Your task to perform on an android device: read, delete, or share a saved page in the chrome app Image 0: 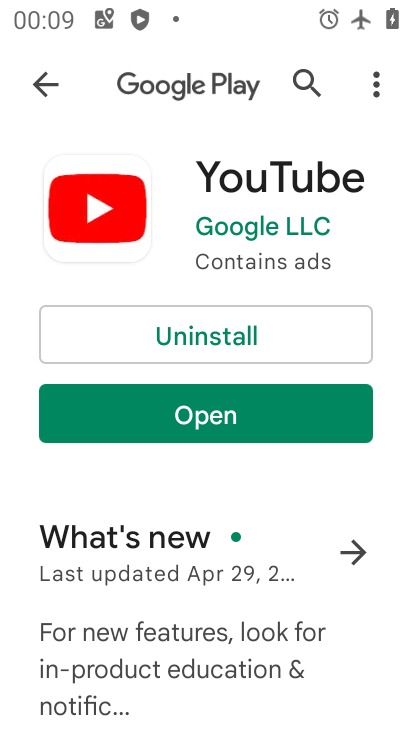
Step 0: press home button
Your task to perform on an android device: read, delete, or share a saved page in the chrome app Image 1: 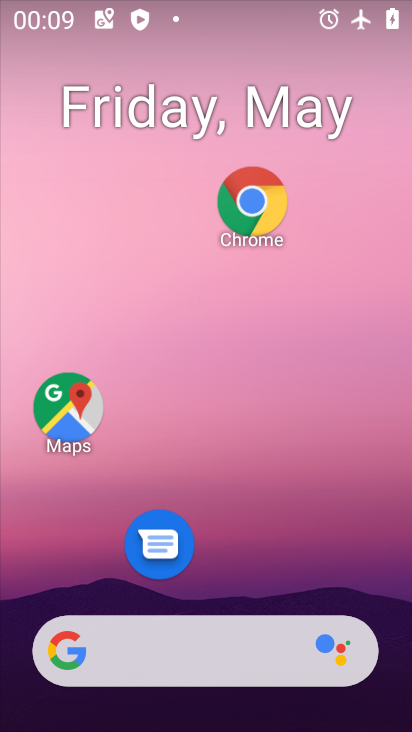
Step 1: click (251, 197)
Your task to perform on an android device: read, delete, or share a saved page in the chrome app Image 2: 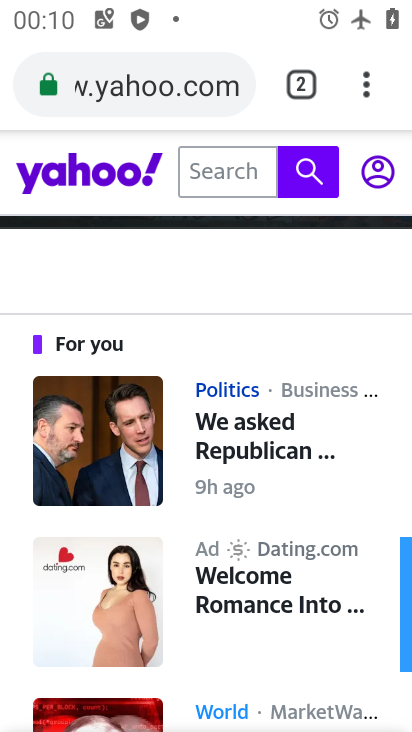
Step 2: drag from (247, 666) to (254, 263)
Your task to perform on an android device: read, delete, or share a saved page in the chrome app Image 3: 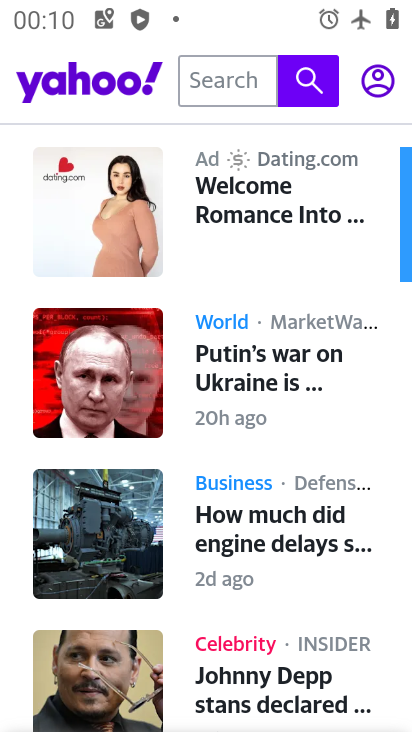
Step 3: drag from (173, 150) to (158, 637)
Your task to perform on an android device: read, delete, or share a saved page in the chrome app Image 4: 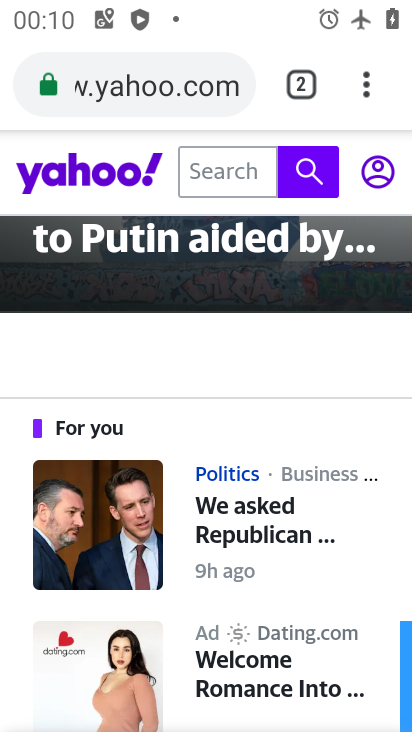
Step 4: click (360, 81)
Your task to perform on an android device: read, delete, or share a saved page in the chrome app Image 5: 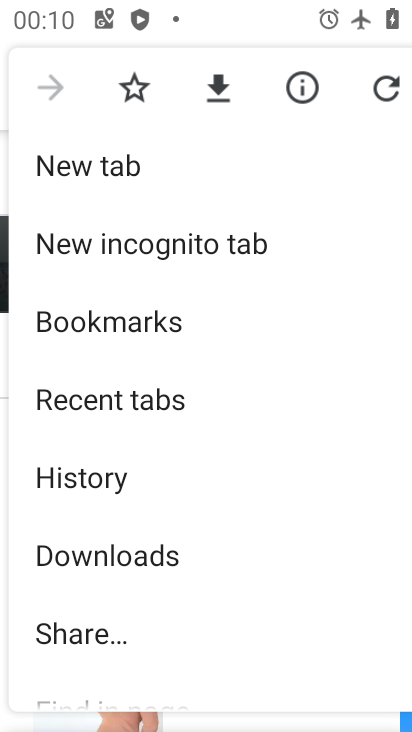
Step 5: drag from (194, 622) to (217, 144)
Your task to perform on an android device: read, delete, or share a saved page in the chrome app Image 6: 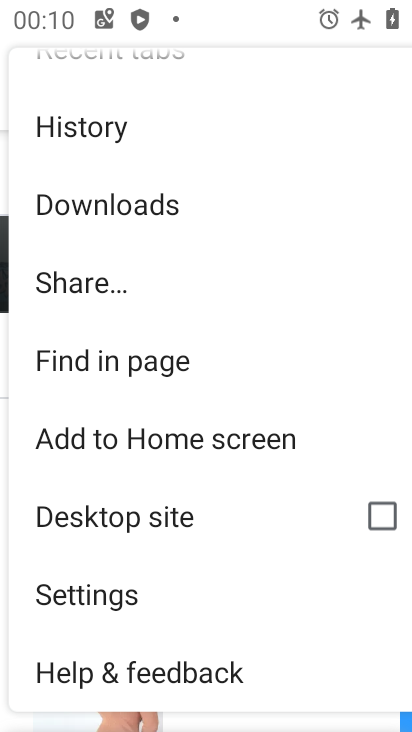
Step 6: click (191, 201)
Your task to perform on an android device: read, delete, or share a saved page in the chrome app Image 7: 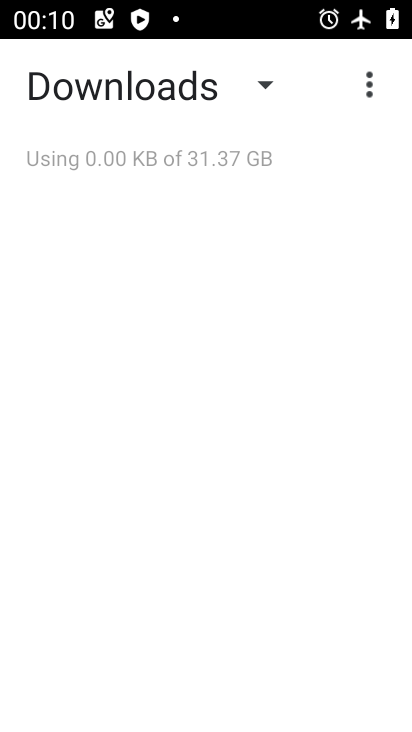
Step 7: task complete